Your task to perform on an android device: Open maps Image 0: 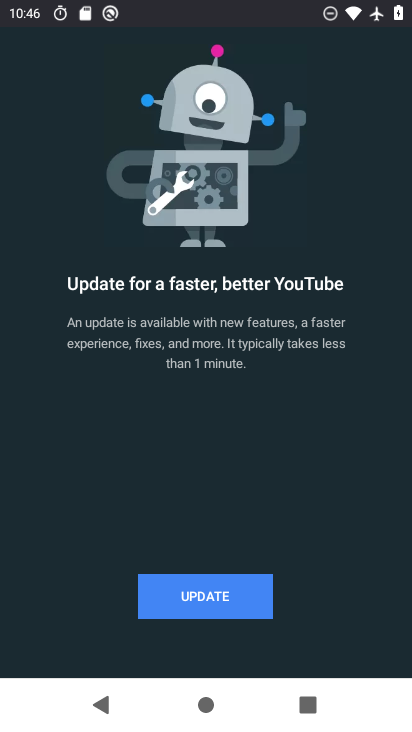
Step 0: press home button
Your task to perform on an android device: Open maps Image 1: 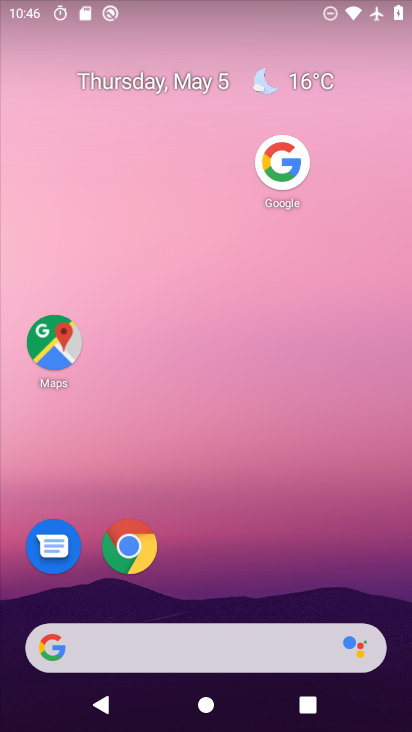
Step 1: drag from (188, 649) to (322, 89)
Your task to perform on an android device: Open maps Image 2: 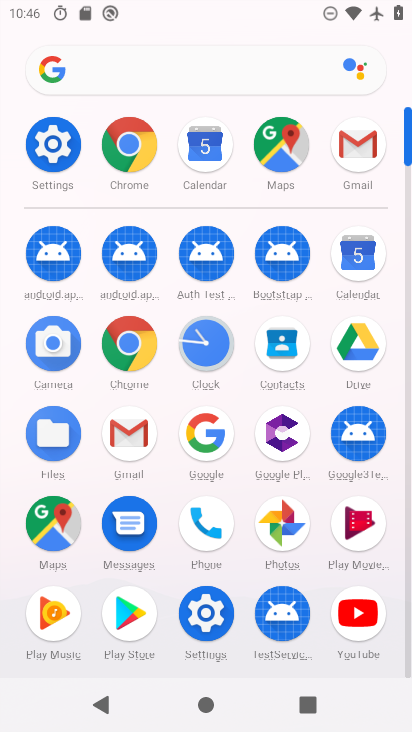
Step 2: click (60, 526)
Your task to perform on an android device: Open maps Image 3: 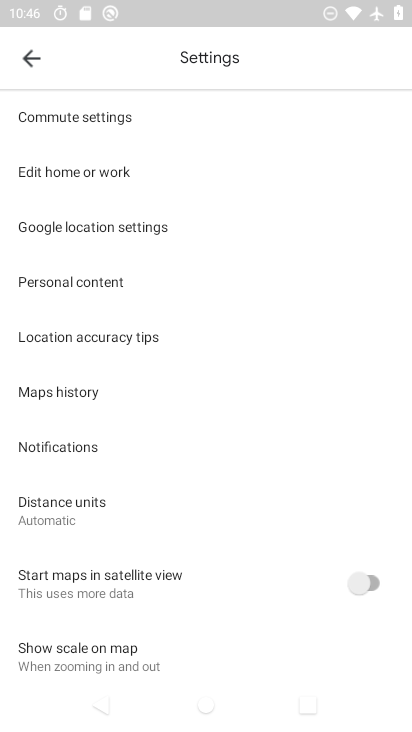
Step 3: click (31, 63)
Your task to perform on an android device: Open maps Image 4: 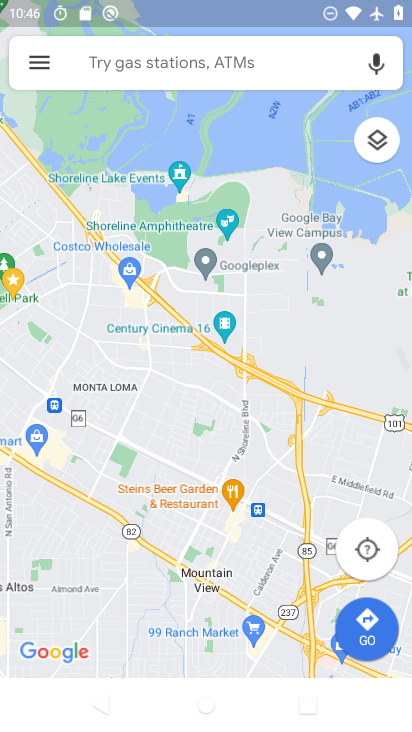
Step 4: task complete